Your task to perform on an android device: search for starred emails in the gmail app Image 0: 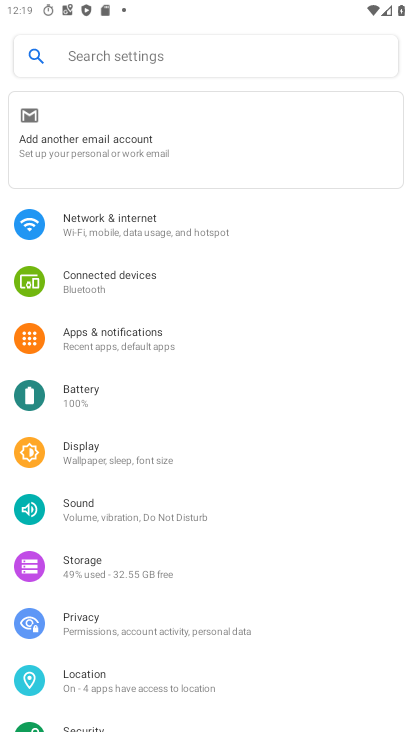
Step 0: press home button
Your task to perform on an android device: search for starred emails in the gmail app Image 1: 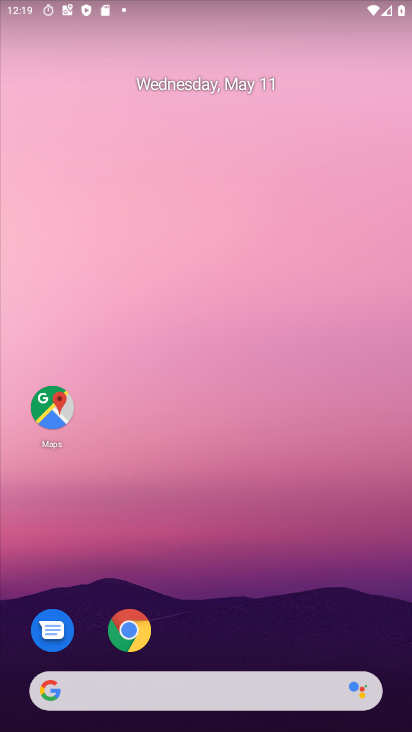
Step 1: drag from (216, 571) to (248, 112)
Your task to perform on an android device: search for starred emails in the gmail app Image 2: 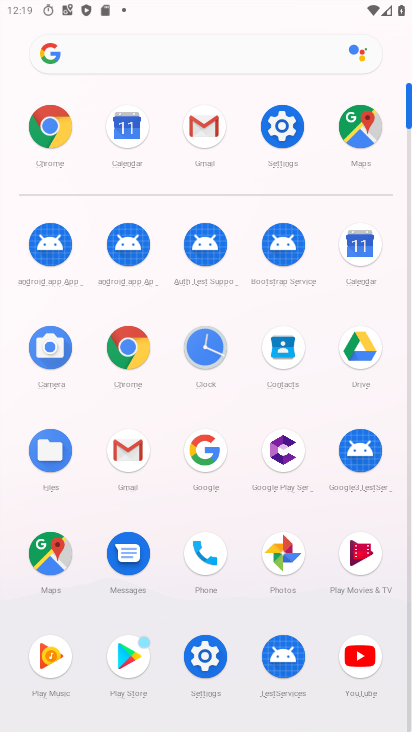
Step 2: click (200, 139)
Your task to perform on an android device: search for starred emails in the gmail app Image 3: 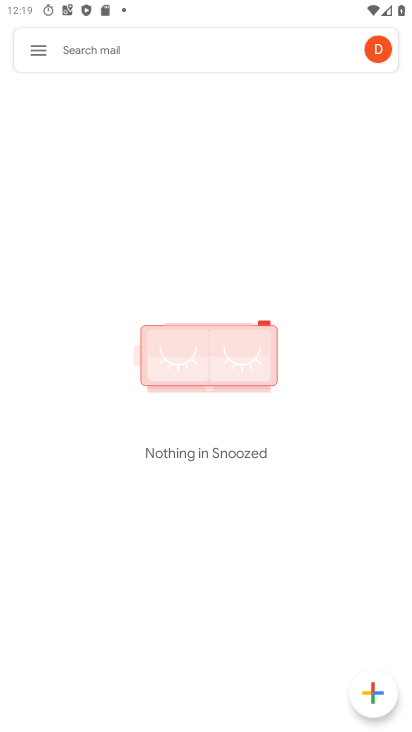
Step 3: click (39, 57)
Your task to perform on an android device: search for starred emails in the gmail app Image 4: 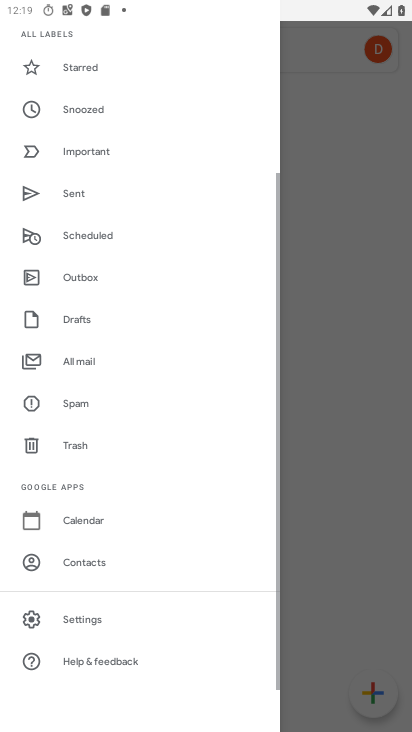
Step 4: drag from (138, 155) to (188, 618)
Your task to perform on an android device: search for starred emails in the gmail app Image 5: 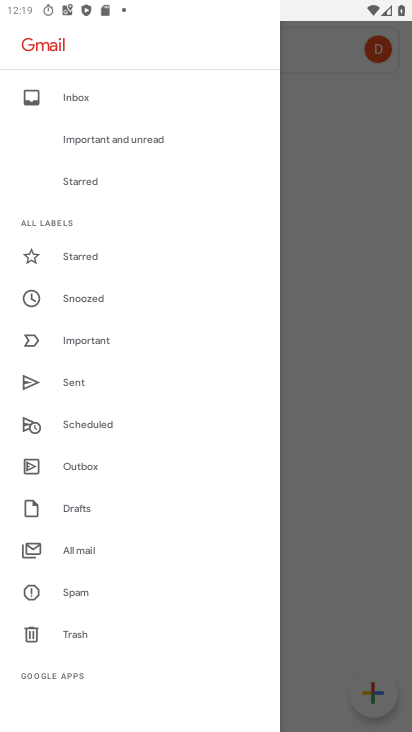
Step 5: click (101, 261)
Your task to perform on an android device: search for starred emails in the gmail app Image 6: 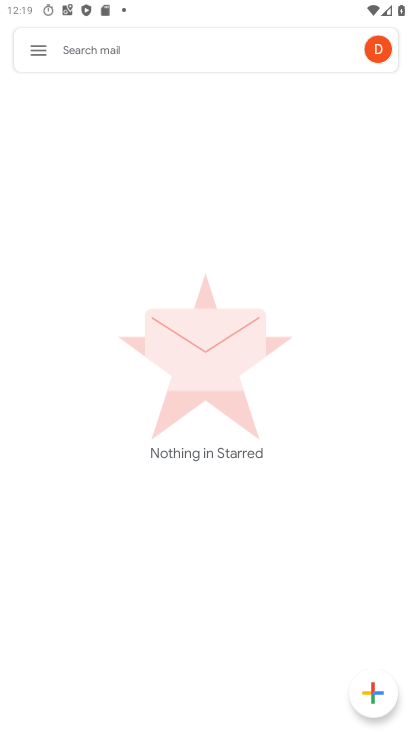
Step 6: task complete